Your task to perform on an android device: turn notification dots off Image 0: 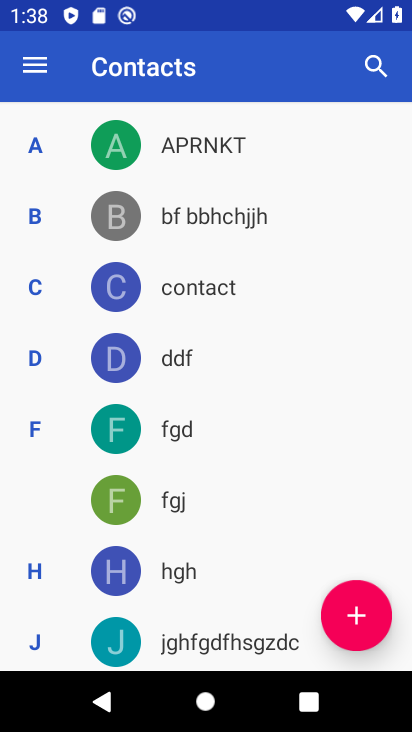
Step 0: press home button
Your task to perform on an android device: turn notification dots off Image 1: 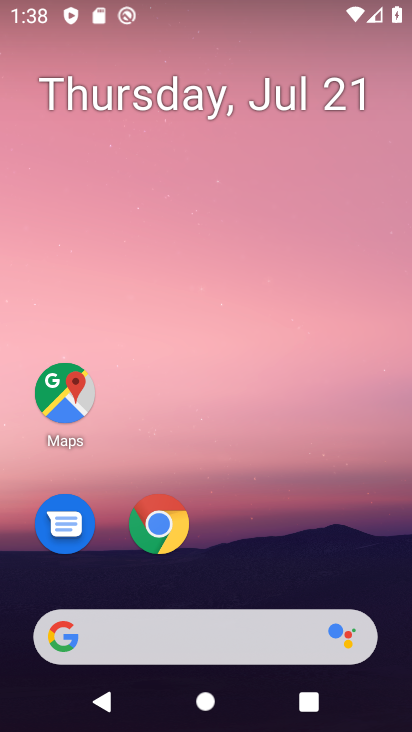
Step 1: drag from (258, 581) to (294, 104)
Your task to perform on an android device: turn notification dots off Image 2: 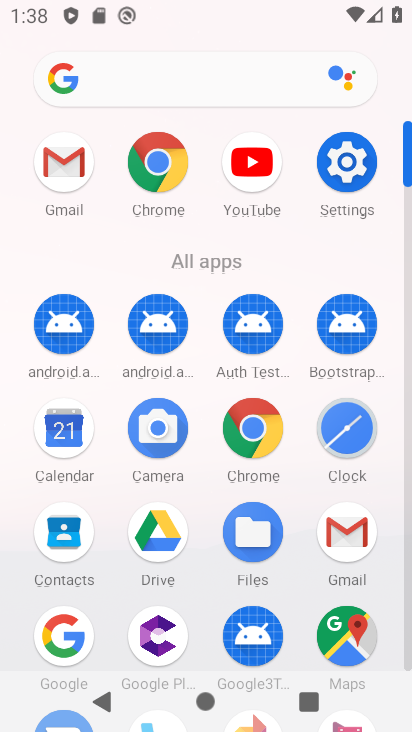
Step 2: click (348, 163)
Your task to perform on an android device: turn notification dots off Image 3: 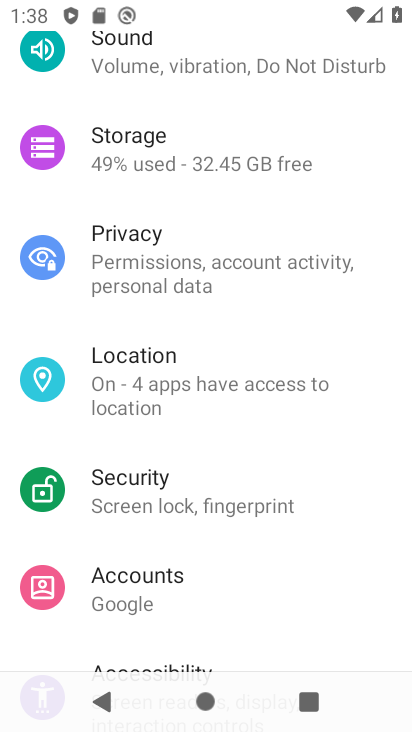
Step 3: drag from (221, 111) to (257, 635)
Your task to perform on an android device: turn notification dots off Image 4: 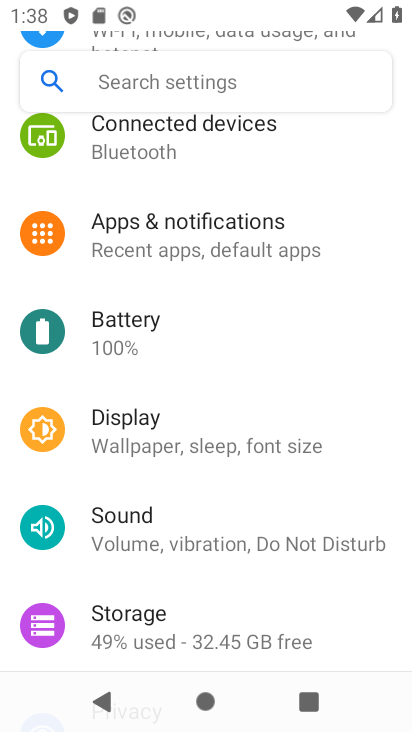
Step 4: click (225, 238)
Your task to perform on an android device: turn notification dots off Image 5: 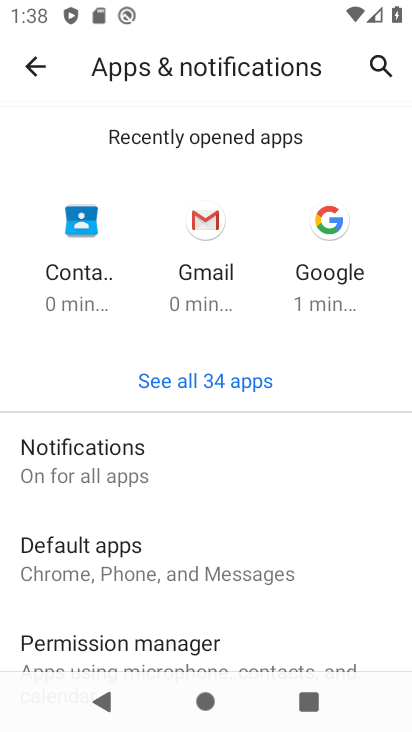
Step 5: click (122, 463)
Your task to perform on an android device: turn notification dots off Image 6: 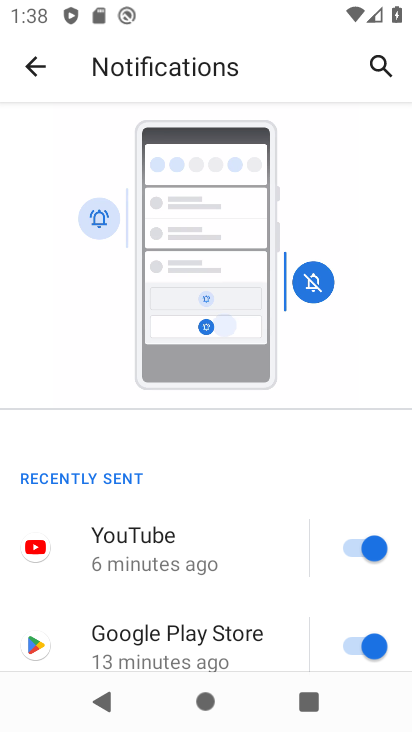
Step 6: drag from (220, 600) to (252, 103)
Your task to perform on an android device: turn notification dots off Image 7: 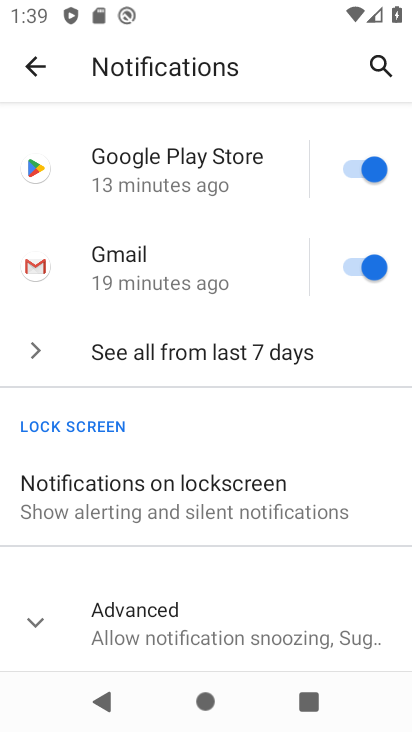
Step 7: click (207, 495)
Your task to perform on an android device: turn notification dots off Image 8: 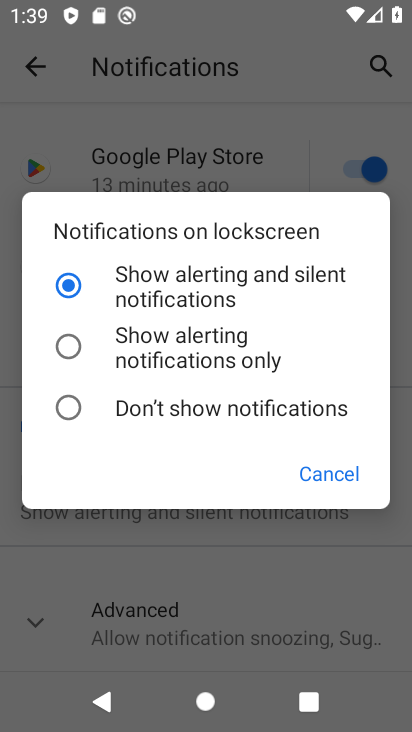
Step 8: click (328, 476)
Your task to perform on an android device: turn notification dots off Image 9: 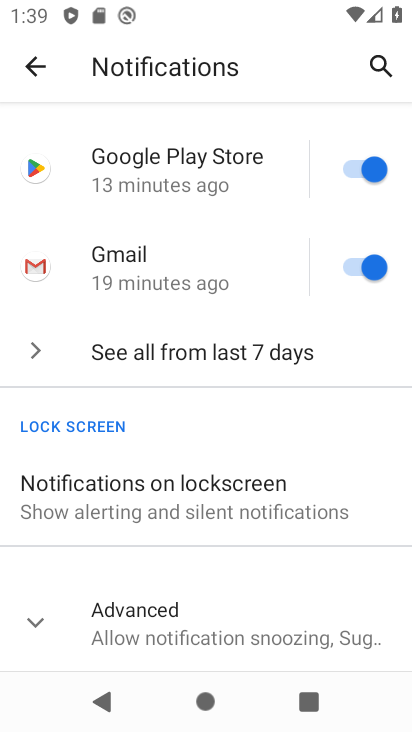
Step 9: click (37, 616)
Your task to perform on an android device: turn notification dots off Image 10: 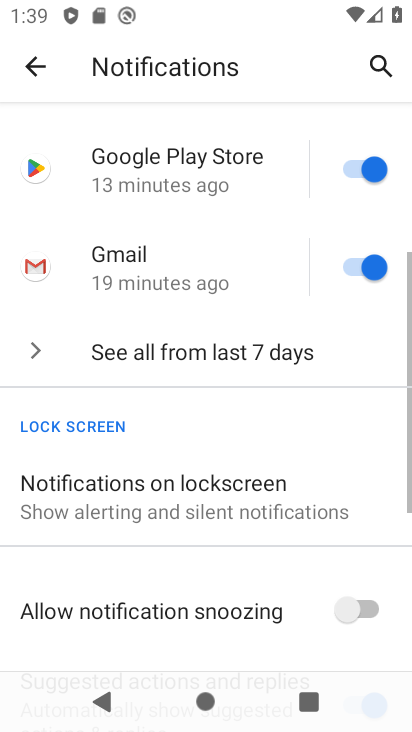
Step 10: drag from (194, 551) to (237, 208)
Your task to perform on an android device: turn notification dots off Image 11: 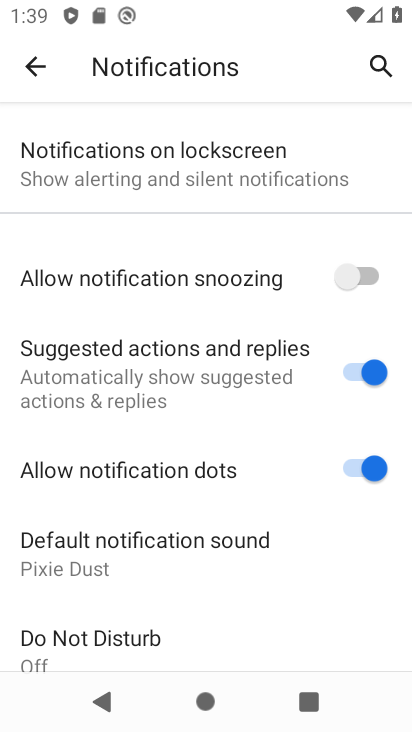
Step 11: click (356, 463)
Your task to perform on an android device: turn notification dots off Image 12: 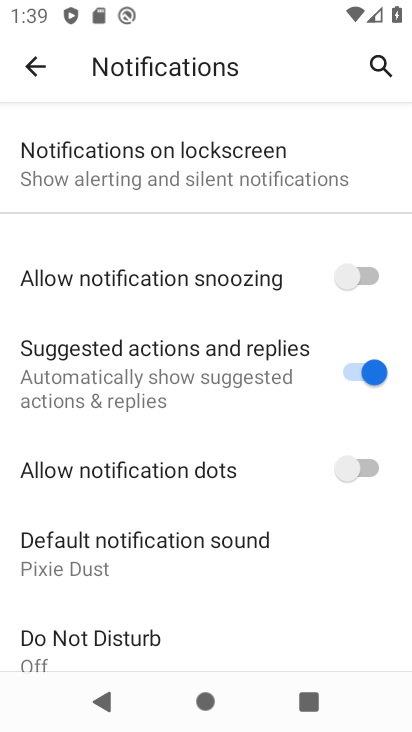
Step 12: task complete